Your task to perform on an android device: empty trash in the gmail app Image 0: 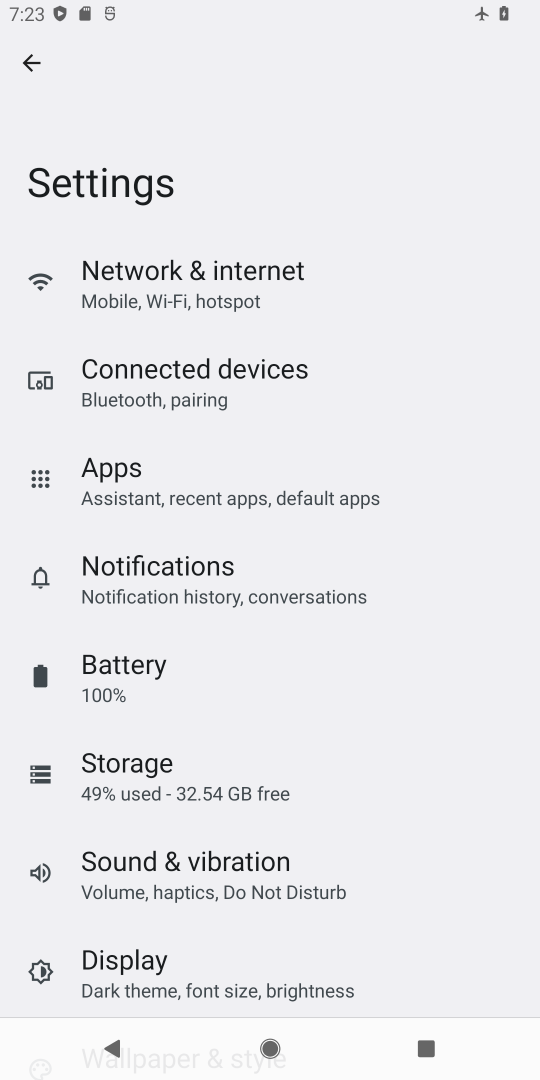
Step 0: press home button
Your task to perform on an android device: empty trash in the gmail app Image 1: 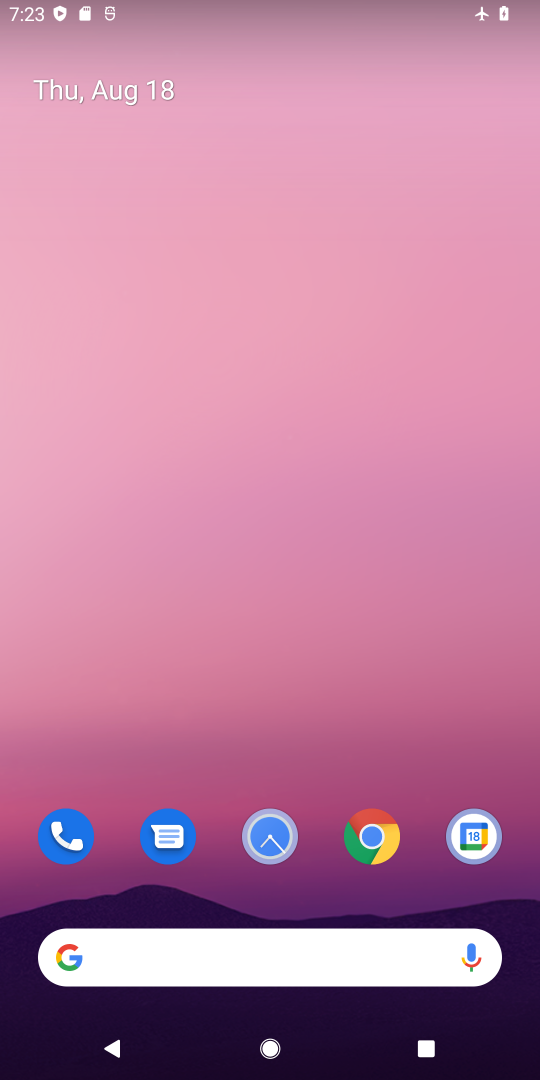
Step 1: drag from (271, 591) to (324, 69)
Your task to perform on an android device: empty trash in the gmail app Image 2: 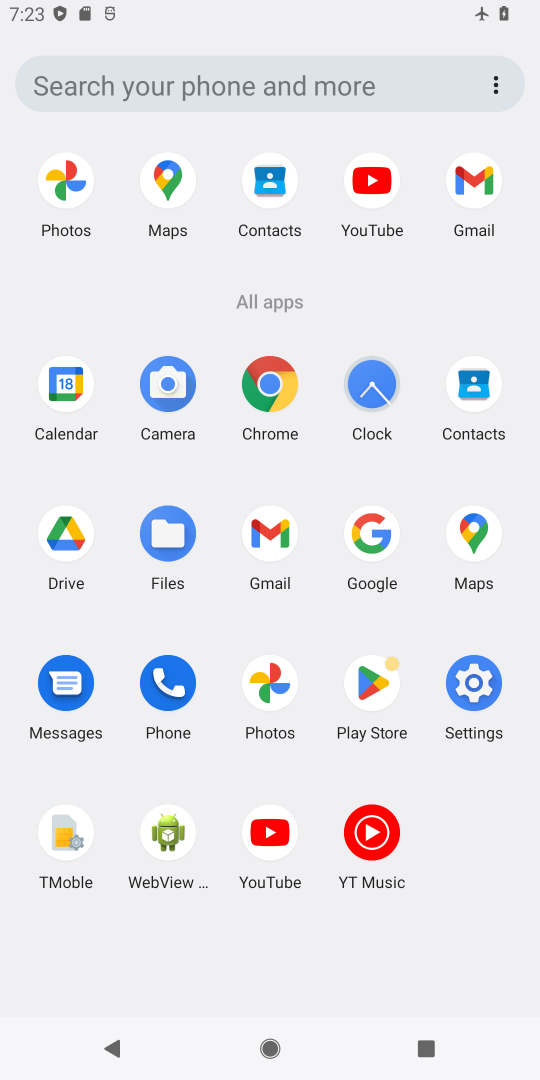
Step 2: click (277, 539)
Your task to perform on an android device: empty trash in the gmail app Image 3: 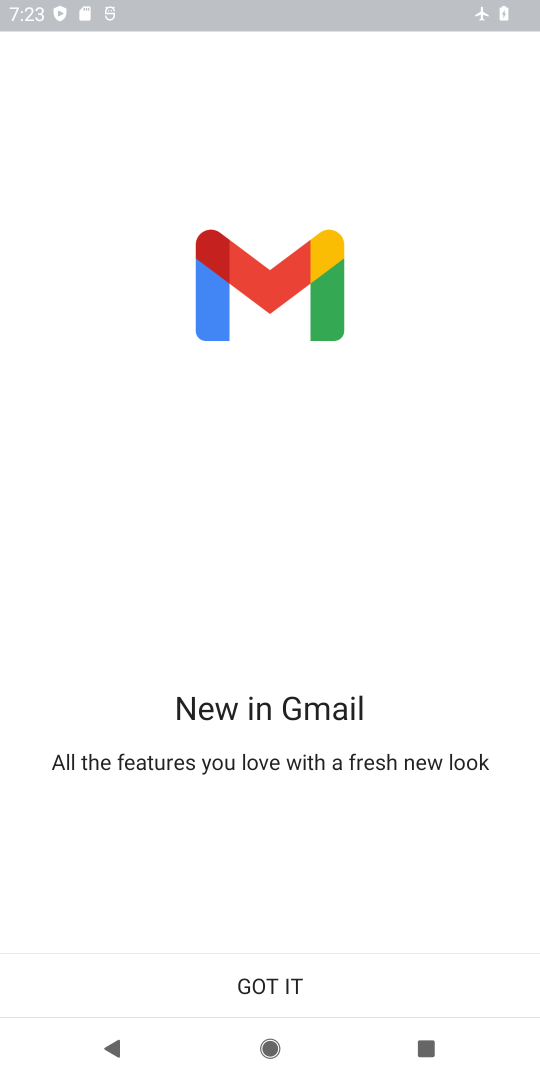
Step 3: click (313, 977)
Your task to perform on an android device: empty trash in the gmail app Image 4: 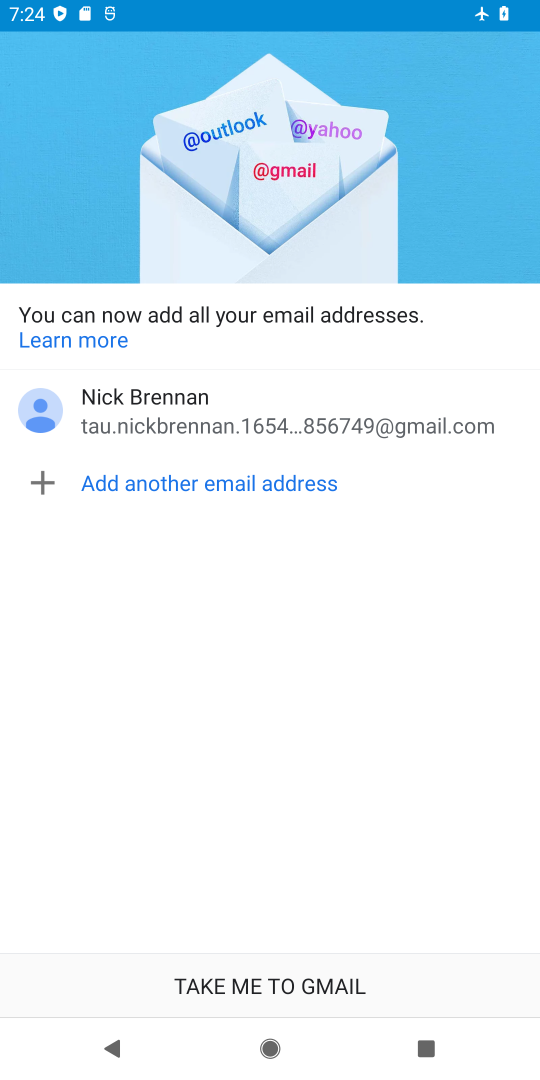
Step 4: click (248, 976)
Your task to perform on an android device: empty trash in the gmail app Image 5: 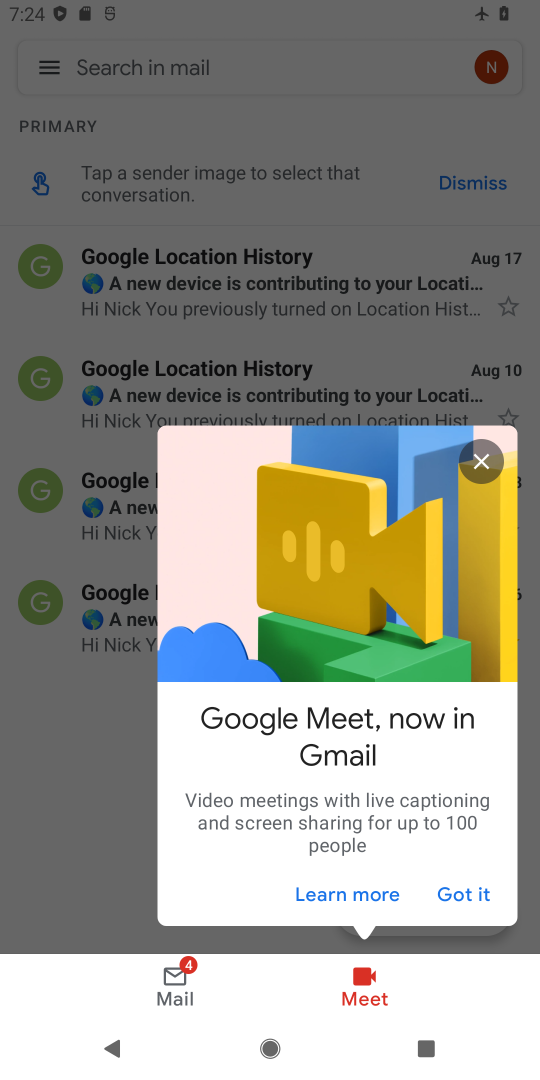
Step 5: click (482, 453)
Your task to perform on an android device: empty trash in the gmail app Image 6: 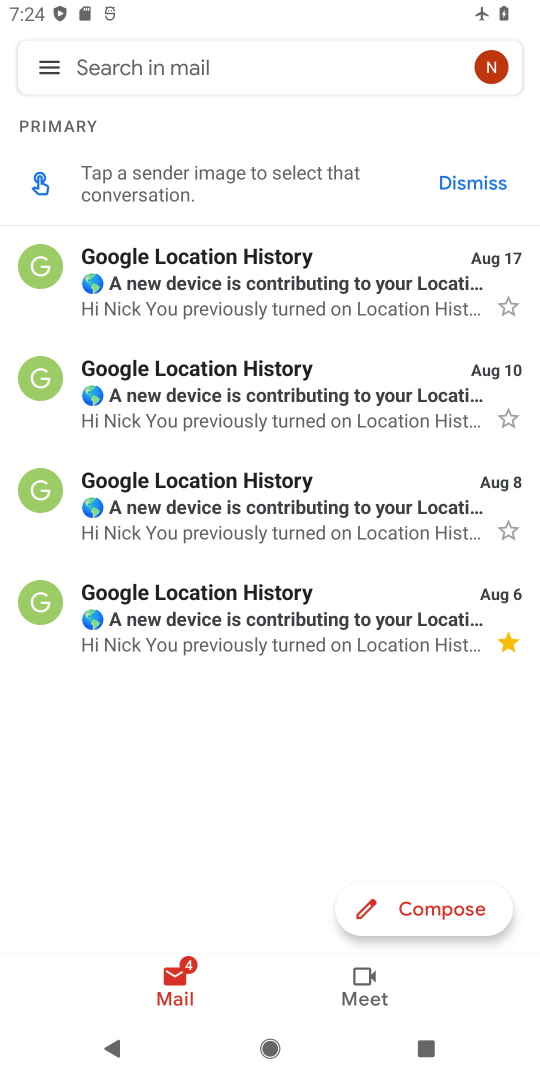
Step 6: click (32, 50)
Your task to perform on an android device: empty trash in the gmail app Image 7: 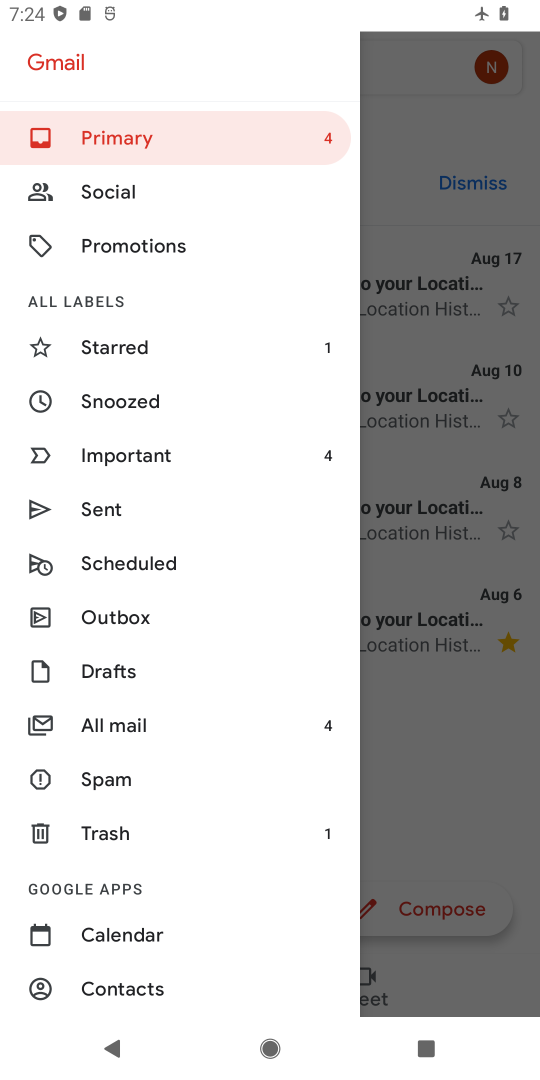
Step 7: click (128, 836)
Your task to perform on an android device: empty trash in the gmail app Image 8: 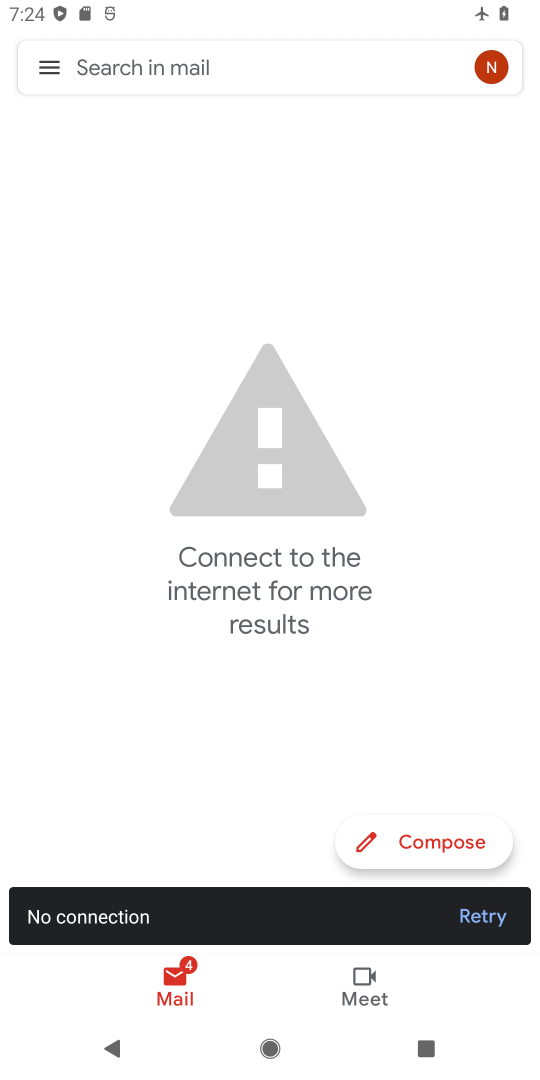
Step 8: task complete